Your task to perform on an android device: Open display settings Image 0: 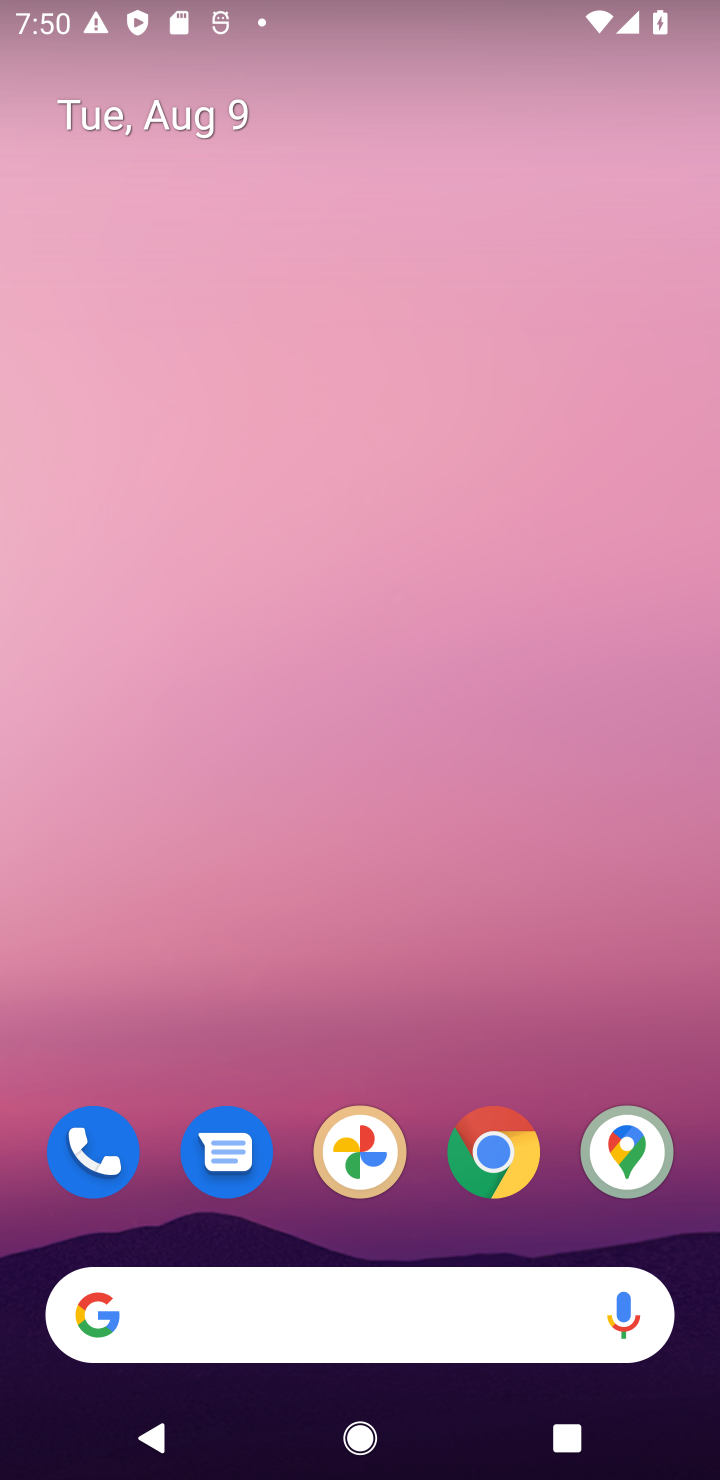
Step 0: drag from (376, 1022) to (393, 198)
Your task to perform on an android device: Open display settings Image 1: 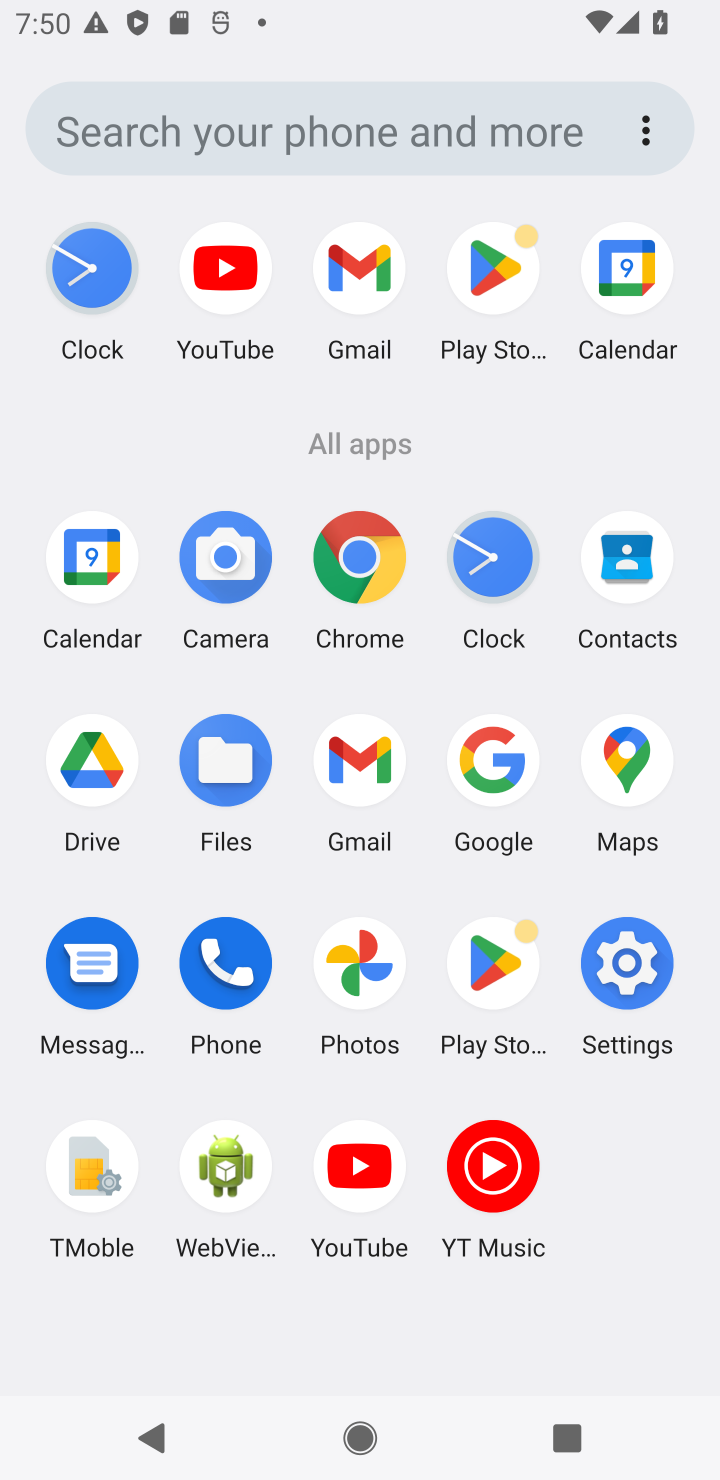
Step 1: click (623, 982)
Your task to perform on an android device: Open display settings Image 2: 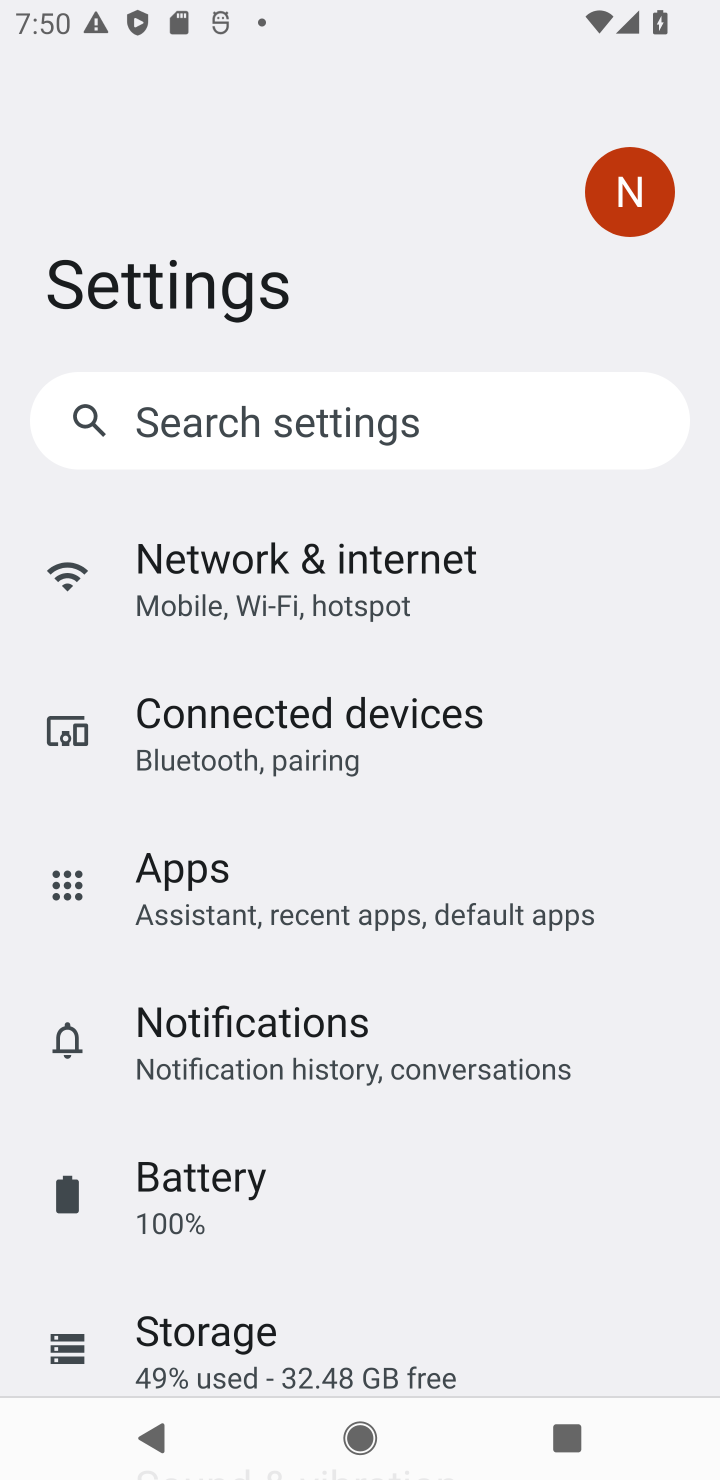
Step 2: drag from (317, 1283) to (516, 479)
Your task to perform on an android device: Open display settings Image 3: 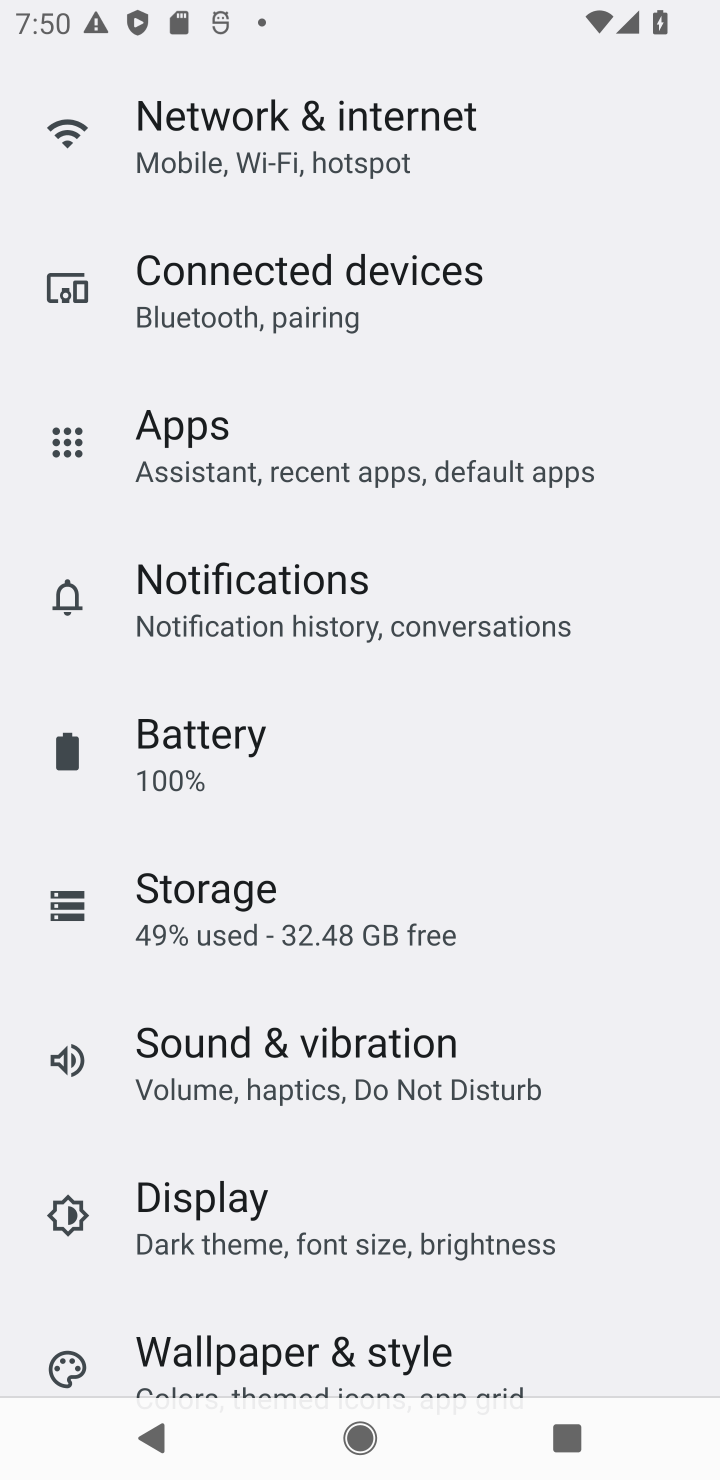
Step 3: click (214, 1232)
Your task to perform on an android device: Open display settings Image 4: 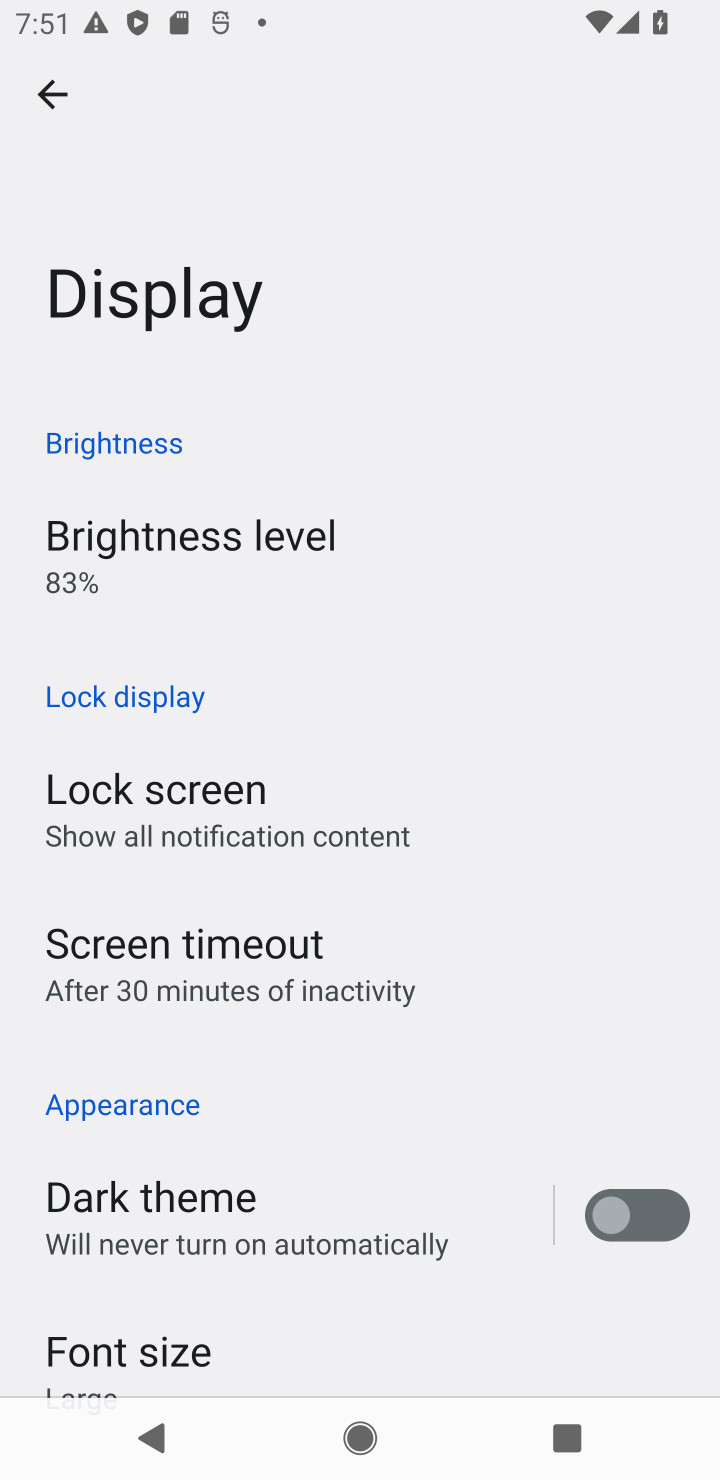
Step 4: task complete